Your task to perform on an android device: turn on location history Image 0: 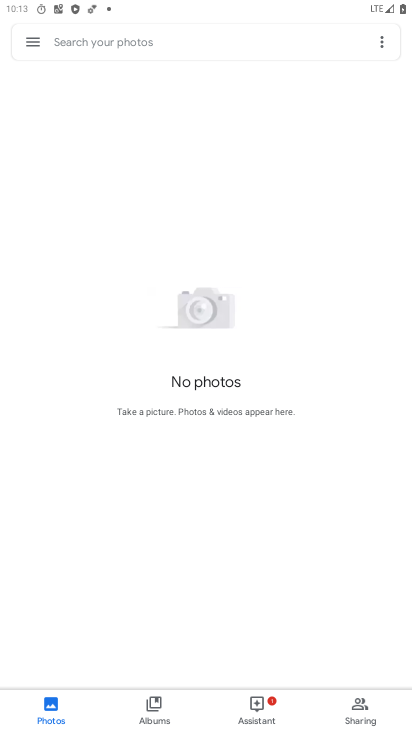
Step 0: press home button
Your task to perform on an android device: turn on location history Image 1: 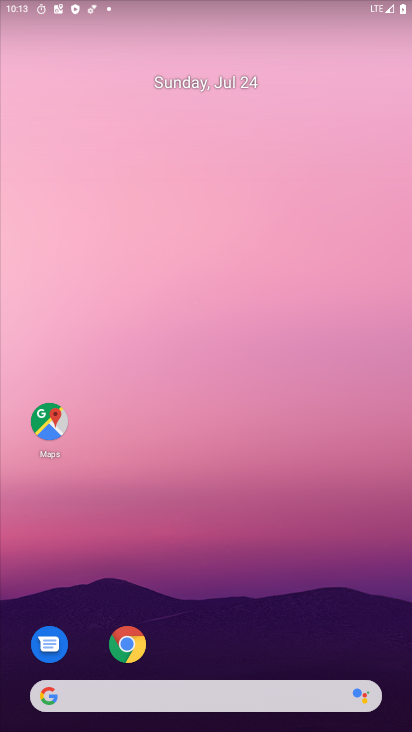
Step 1: drag from (214, 648) to (214, 123)
Your task to perform on an android device: turn on location history Image 2: 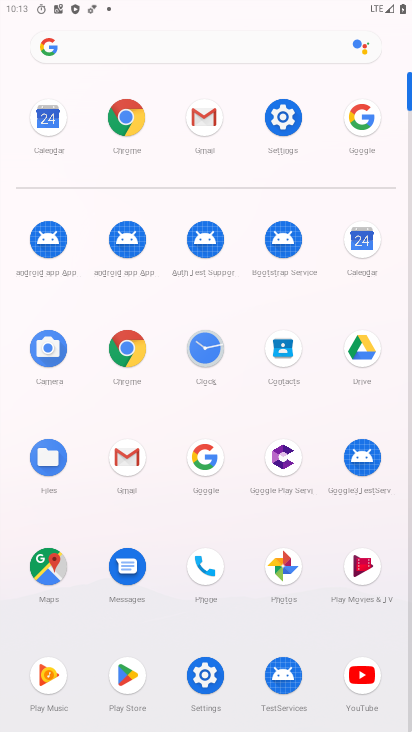
Step 2: click (204, 678)
Your task to perform on an android device: turn on location history Image 3: 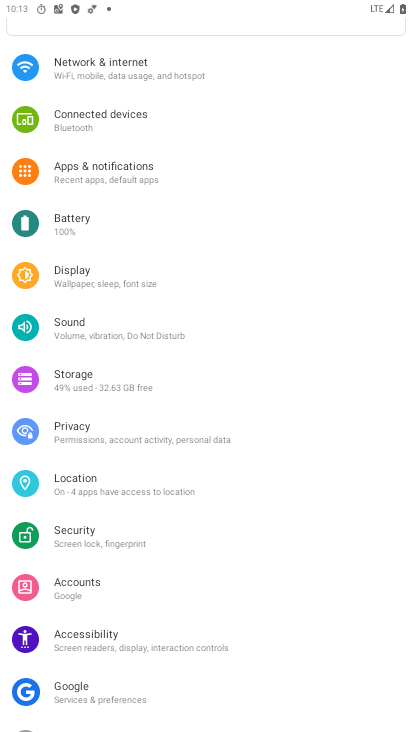
Step 3: click (99, 479)
Your task to perform on an android device: turn on location history Image 4: 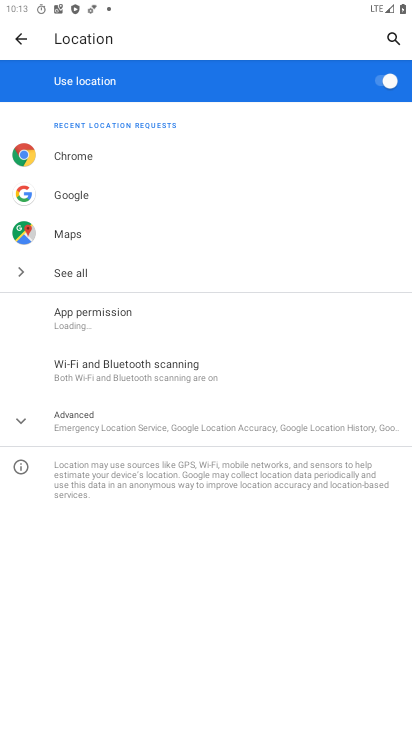
Step 4: task complete